Your task to perform on an android device: Go to Wikipedia Image 0: 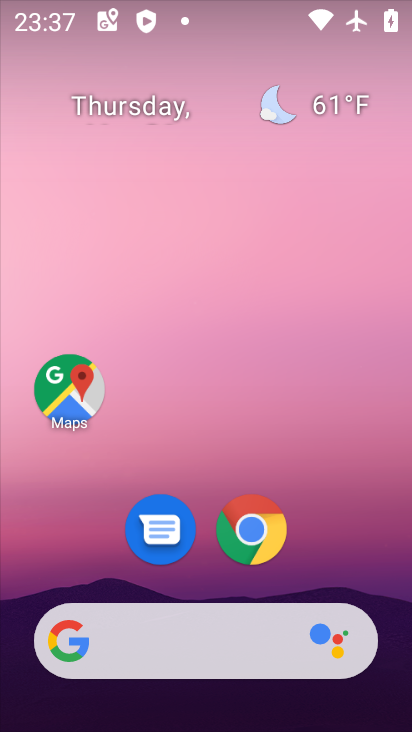
Step 0: drag from (354, 573) to (287, 169)
Your task to perform on an android device: Go to Wikipedia Image 1: 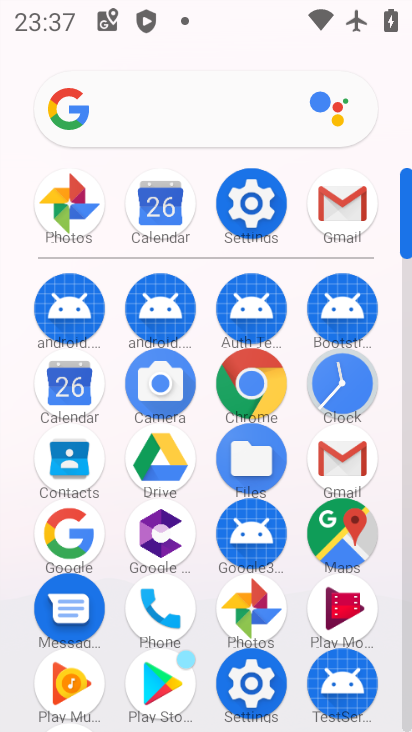
Step 1: click (259, 390)
Your task to perform on an android device: Go to Wikipedia Image 2: 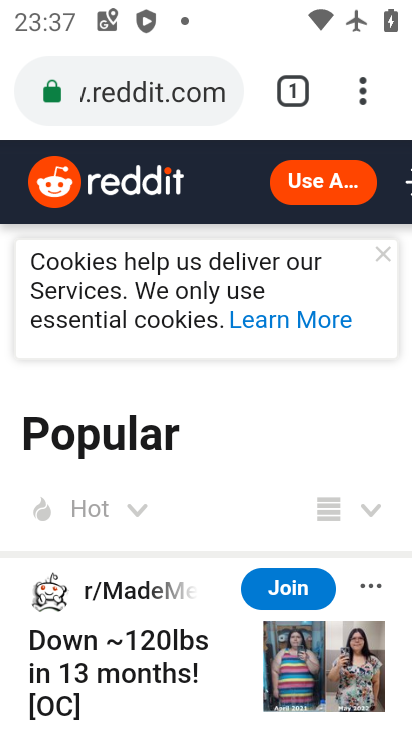
Step 2: click (372, 94)
Your task to perform on an android device: Go to Wikipedia Image 3: 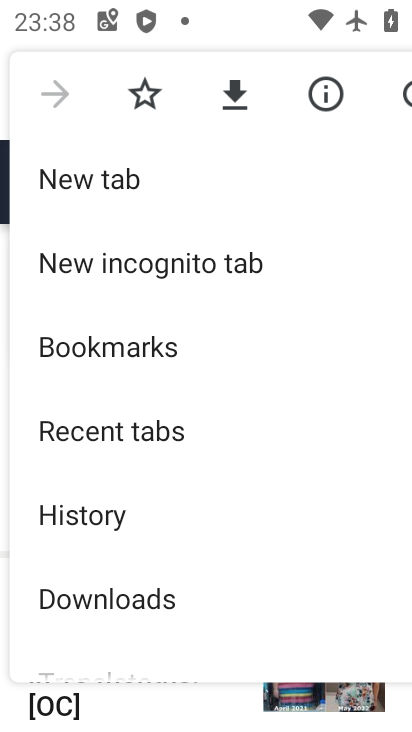
Step 3: press back button
Your task to perform on an android device: Go to Wikipedia Image 4: 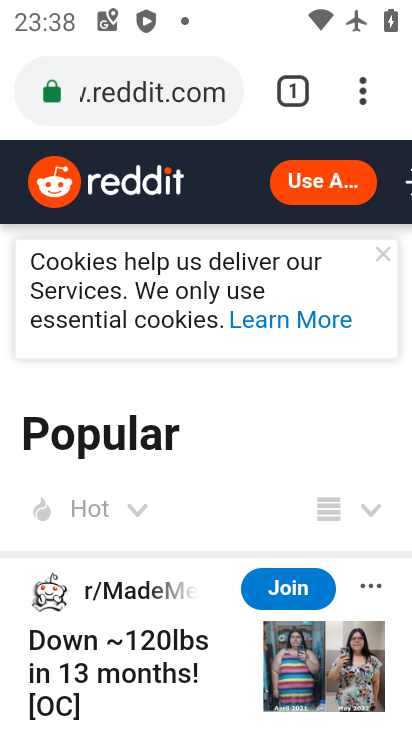
Step 4: click (104, 81)
Your task to perform on an android device: Go to Wikipedia Image 5: 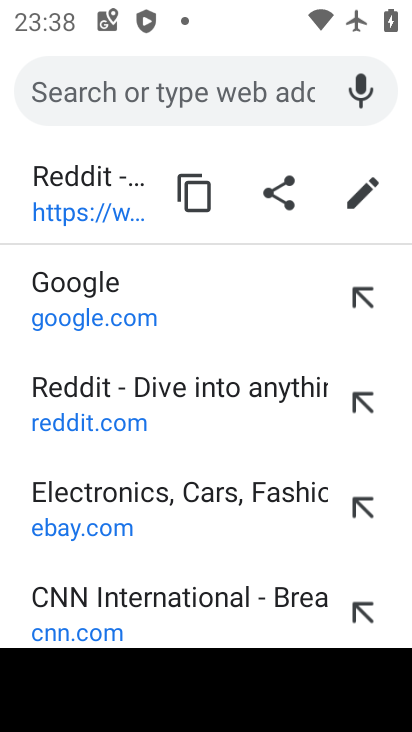
Step 5: type "wikipedia"
Your task to perform on an android device: Go to Wikipedia Image 6: 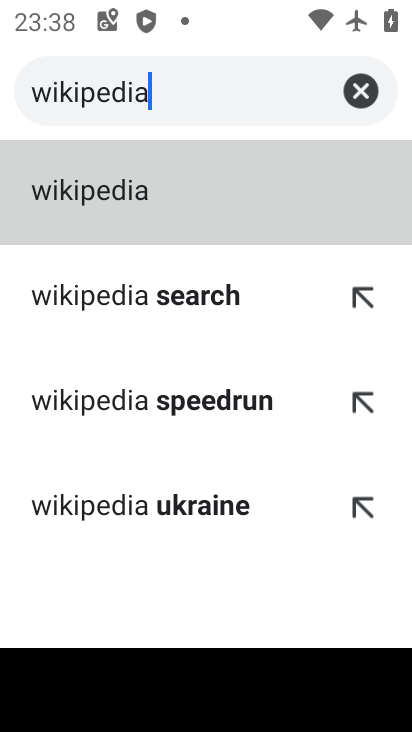
Step 6: click (145, 180)
Your task to perform on an android device: Go to Wikipedia Image 7: 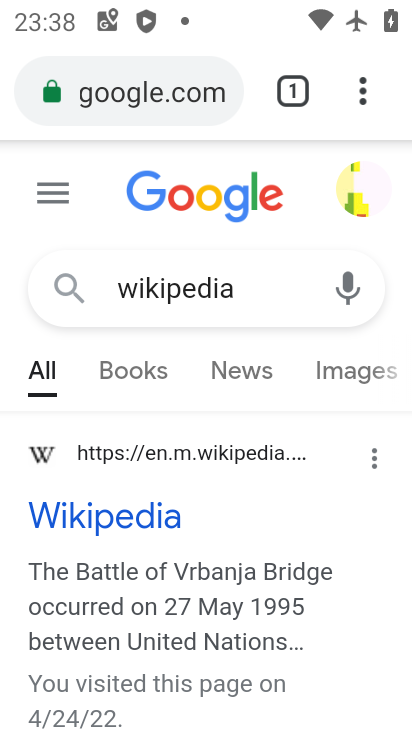
Step 7: click (108, 508)
Your task to perform on an android device: Go to Wikipedia Image 8: 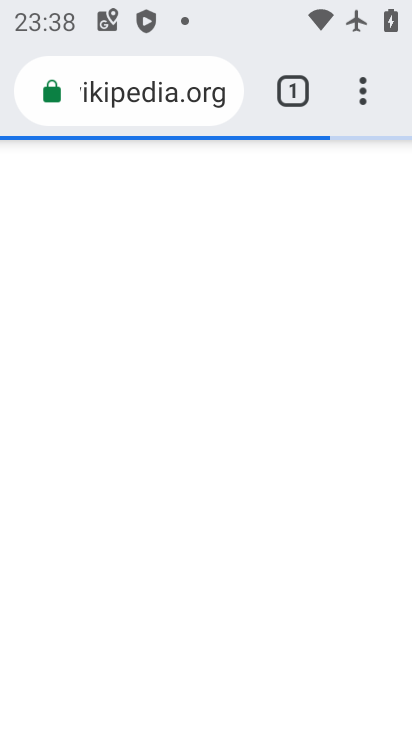
Step 8: task complete